Your task to perform on an android device: Open the web browser Image 0: 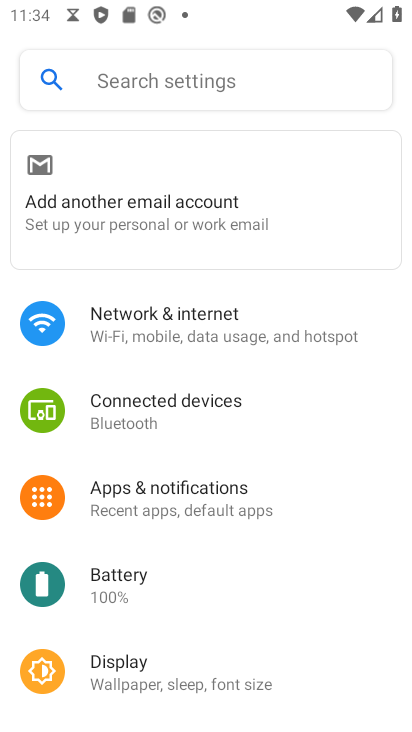
Step 0: press home button
Your task to perform on an android device: Open the web browser Image 1: 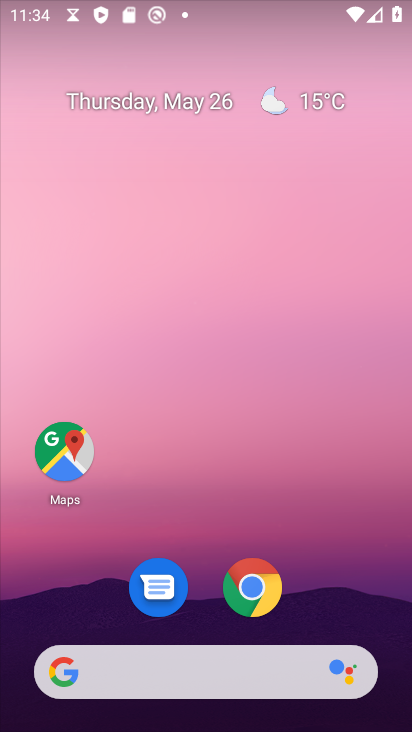
Step 1: drag from (72, 627) to (225, 110)
Your task to perform on an android device: Open the web browser Image 2: 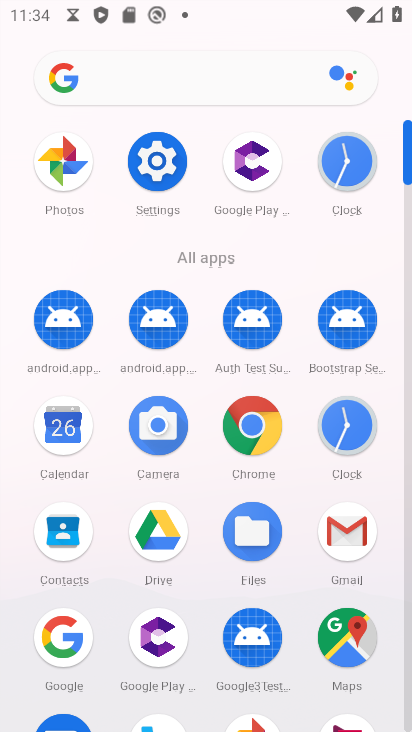
Step 2: drag from (135, 514) to (206, 244)
Your task to perform on an android device: Open the web browser Image 3: 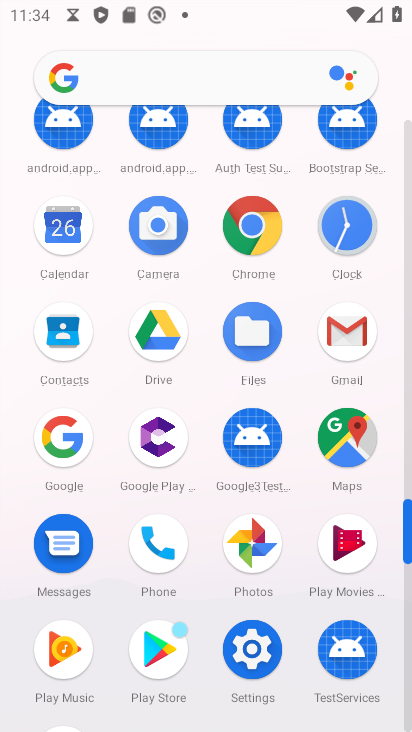
Step 3: click (73, 448)
Your task to perform on an android device: Open the web browser Image 4: 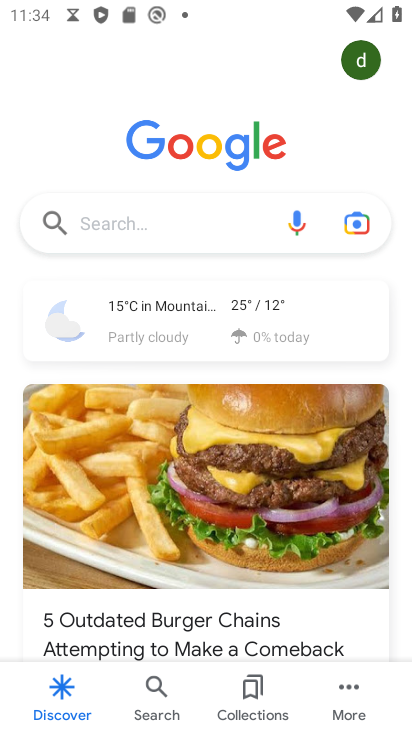
Step 4: task complete